Your task to perform on an android device: Go to settings Image 0: 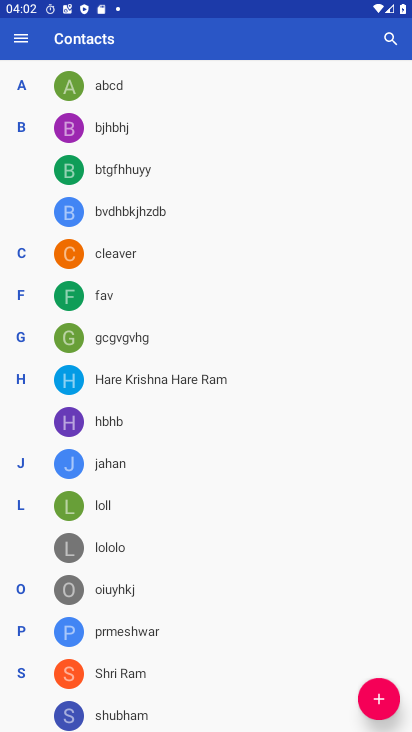
Step 0: press home button
Your task to perform on an android device: Go to settings Image 1: 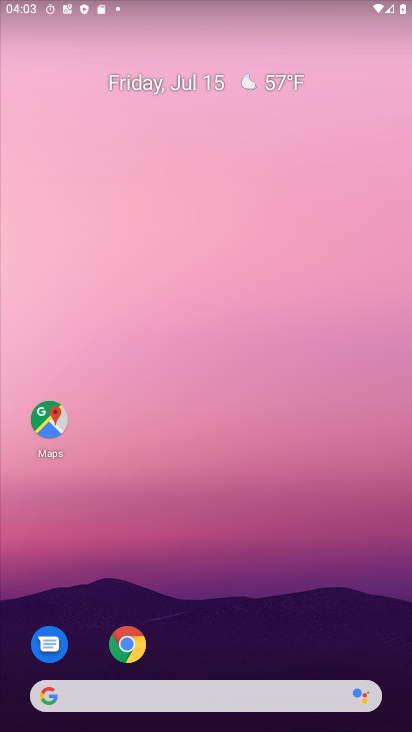
Step 1: drag from (288, 619) to (228, 110)
Your task to perform on an android device: Go to settings Image 2: 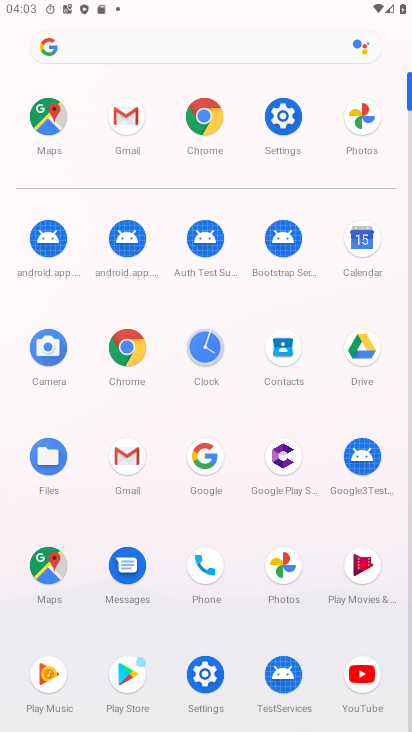
Step 2: click (286, 127)
Your task to perform on an android device: Go to settings Image 3: 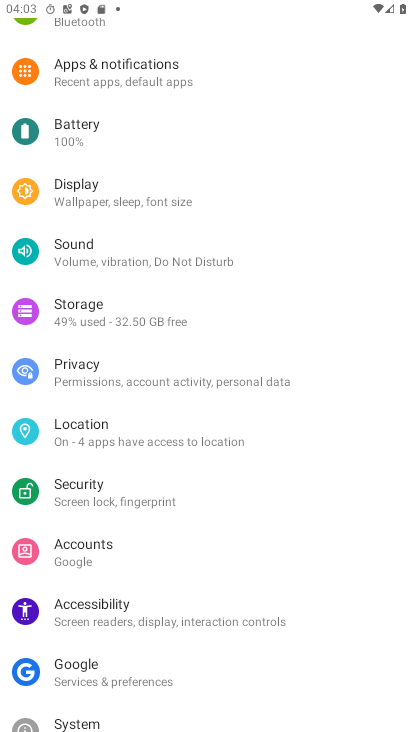
Step 3: task complete